Your task to perform on an android device: turn notification dots off Image 0: 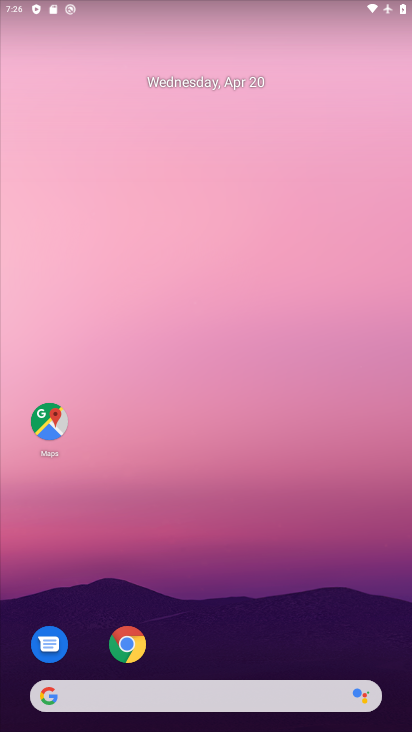
Step 0: drag from (322, 624) to (198, 18)
Your task to perform on an android device: turn notification dots off Image 1: 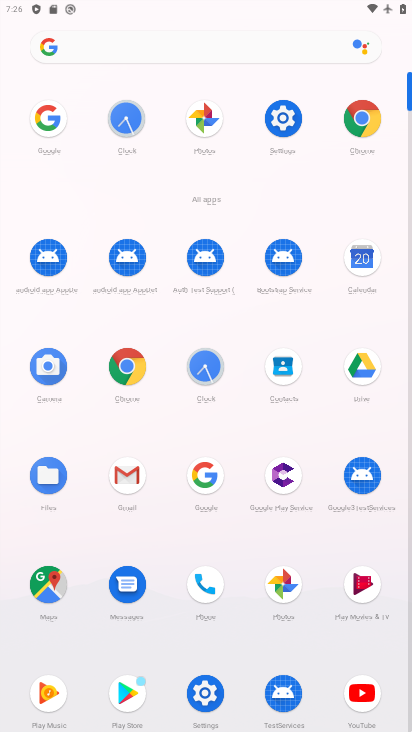
Step 1: click (292, 108)
Your task to perform on an android device: turn notification dots off Image 2: 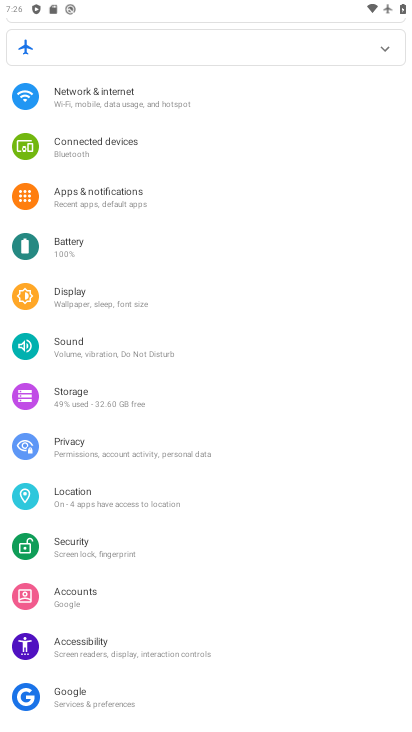
Step 2: click (83, 195)
Your task to perform on an android device: turn notification dots off Image 3: 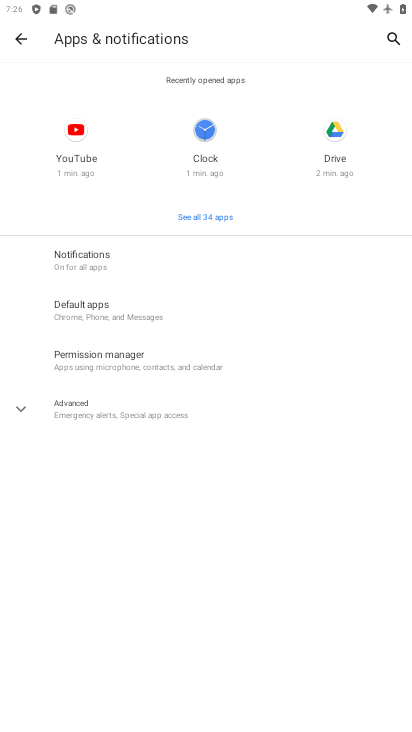
Step 3: click (109, 259)
Your task to perform on an android device: turn notification dots off Image 4: 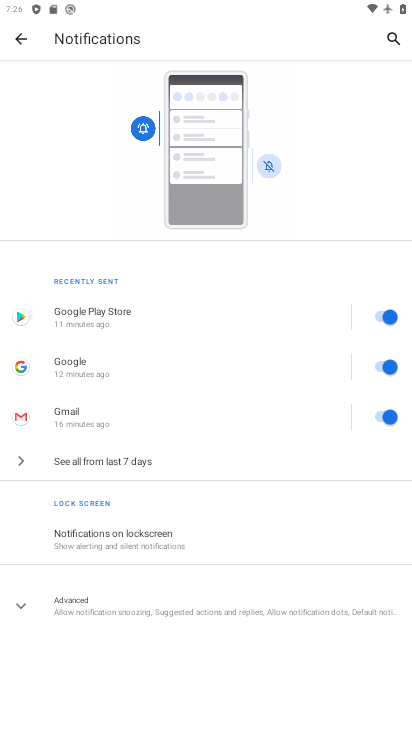
Step 4: click (17, 607)
Your task to perform on an android device: turn notification dots off Image 5: 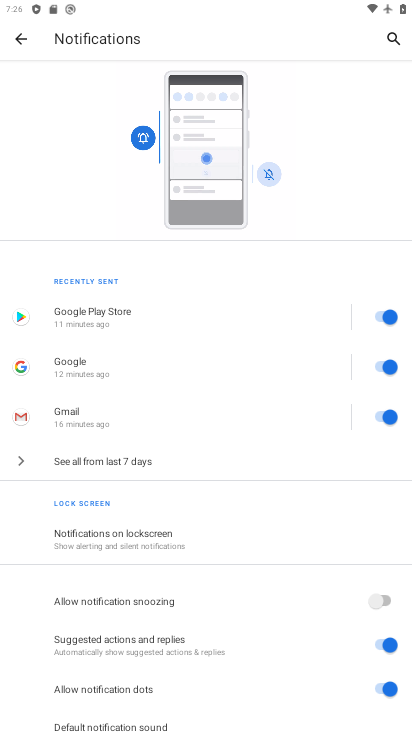
Step 5: drag from (111, 656) to (159, 312)
Your task to perform on an android device: turn notification dots off Image 6: 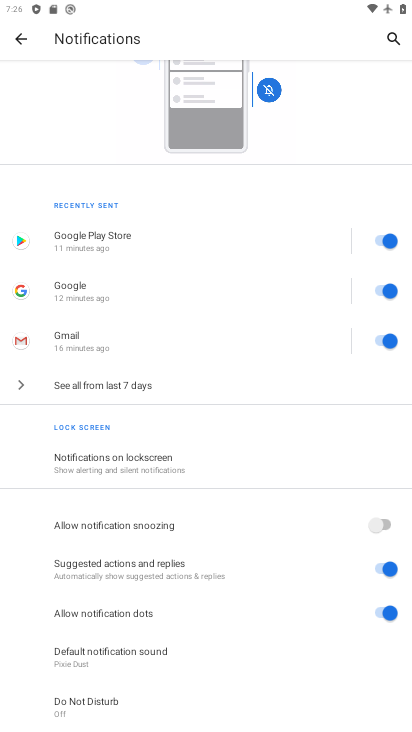
Step 6: click (172, 621)
Your task to perform on an android device: turn notification dots off Image 7: 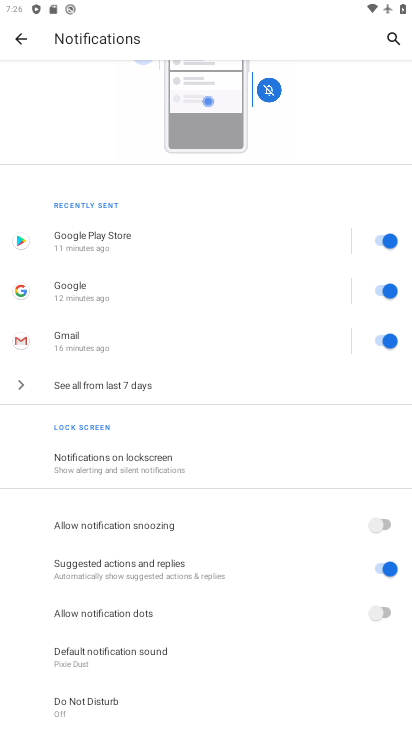
Step 7: task complete